Your task to perform on an android device: Go to ESPN.com Image 0: 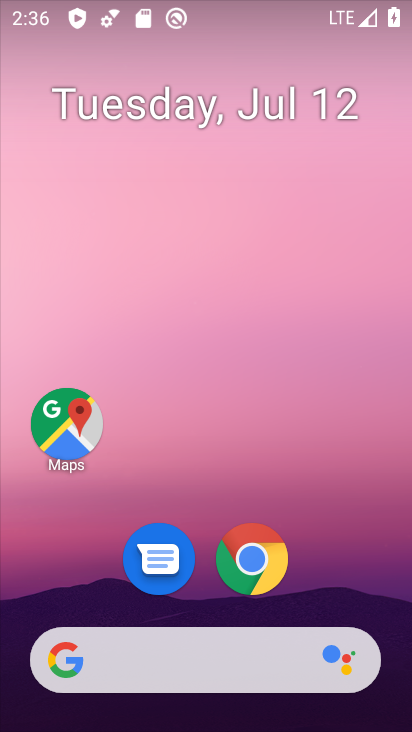
Step 0: drag from (376, 606) to (400, 209)
Your task to perform on an android device: Go to ESPN.com Image 1: 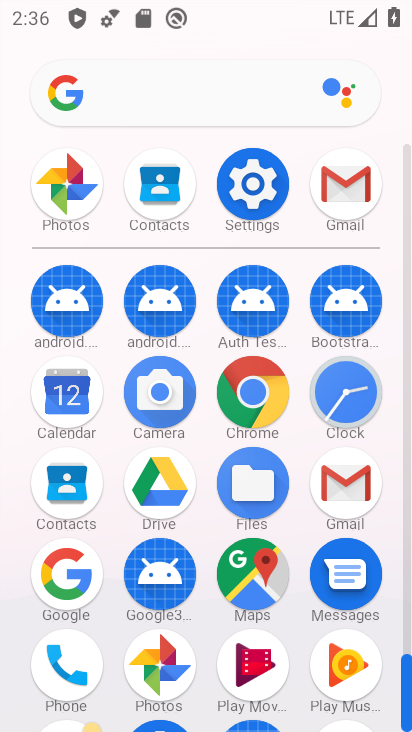
Step 1: click (266, 393)
Your task to perform on an android device: Go to ESPN.com Image 2: 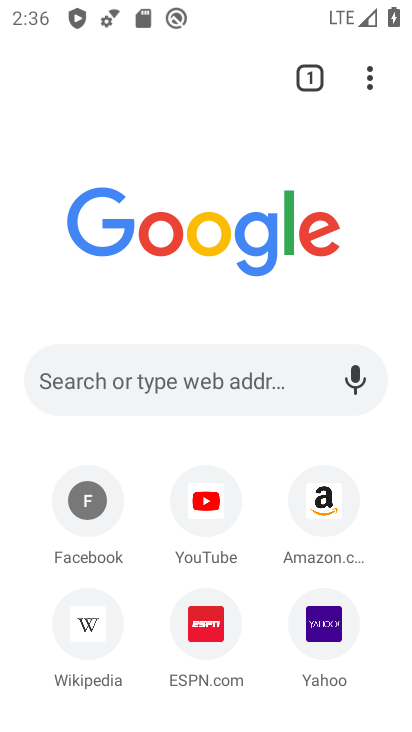
Step 2: click (237, 390)
Your task to perform on an android device: Go to ESPN.com Image 3: 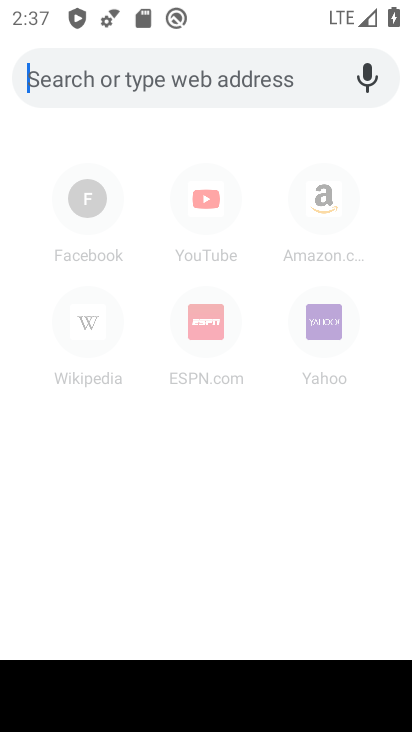
Step 3: type "espn.com"
Your task to perform on an android device: Go to ESPN.com Image 4: 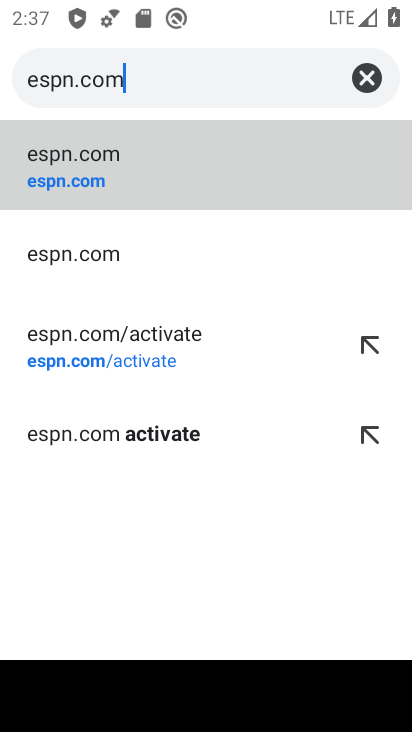
Step 4: click (257, 179)
Your task to perform on an android device: Go to ESPN.com Image 5: 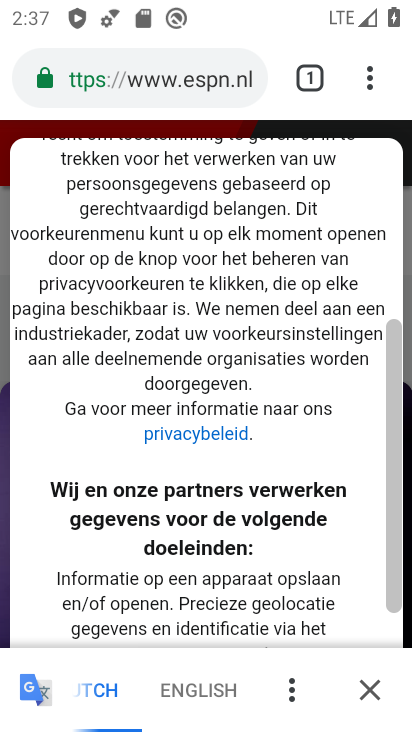
Step 5: task complete